Your task to perform on an android device: move an email to a new category in the gmail app Image 0: 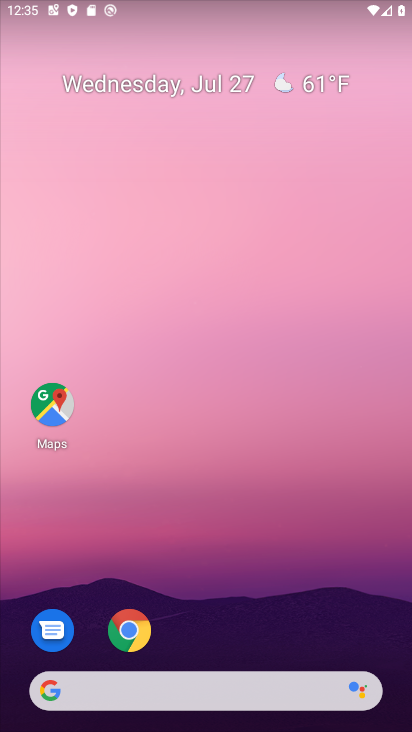
Step 0: drag from (206, 661) to (231, 185)
Your task to perform on an android device: move an email to a new category in the gmail app Image 1: 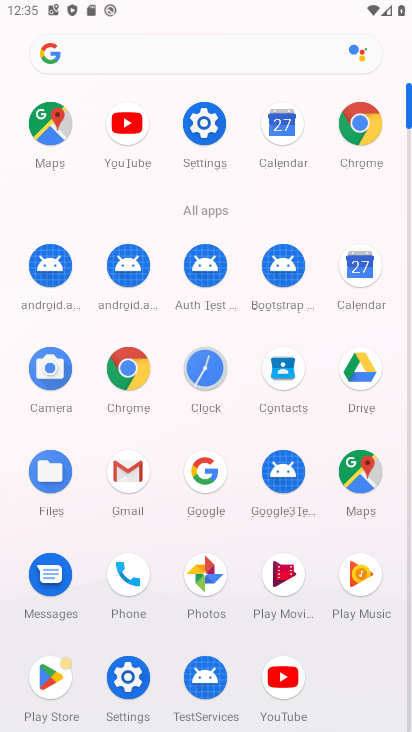
Step 1: click (124, 476)
Your task to perform on an android device: move an email to a new category in the gmail app Image 2: 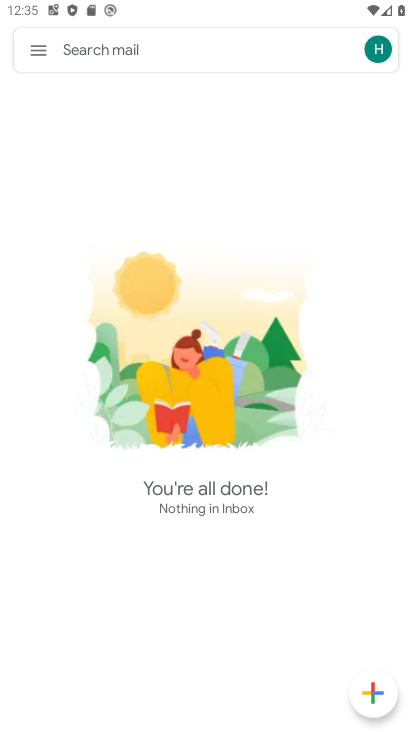
Step 2: task complete